Your task to perform on an android device: What's the weather going to be this weekend? Image 0: 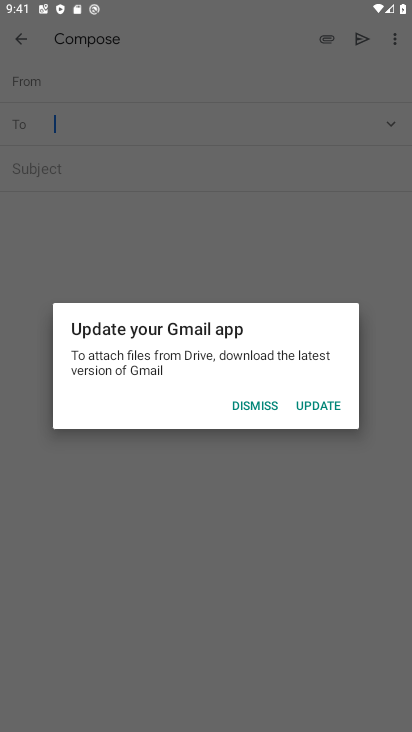
Step 0: press home button
Your task to perform on an android device: What's the weather going to be this weekend? Image 1: 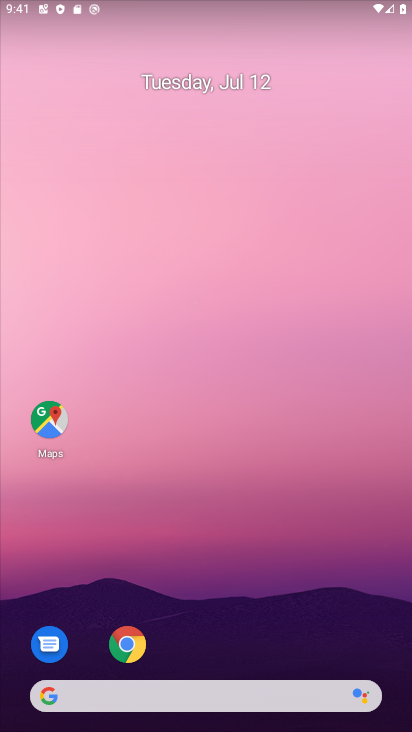
Step 1: click (166, 701)
Your task to perform on an android device: What's the weather going to be this weekend? Image 2: 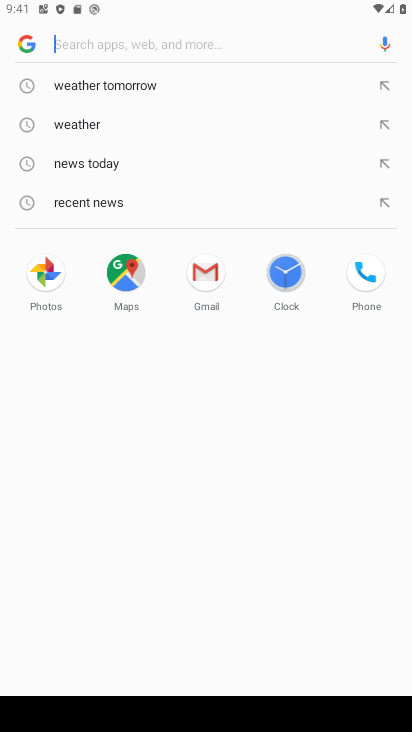
Step 2: click (240, 34)
Your task to perform on an android device: What's the weather going to be this weekend? Image 3: 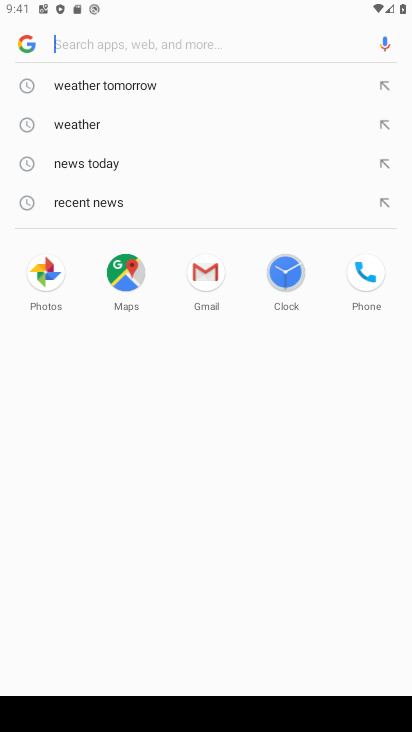
Step 3: type "What's the weather going to be this weekend?"
Your task to perform on an android device: What's the weather going to be this weekend? Image 4: 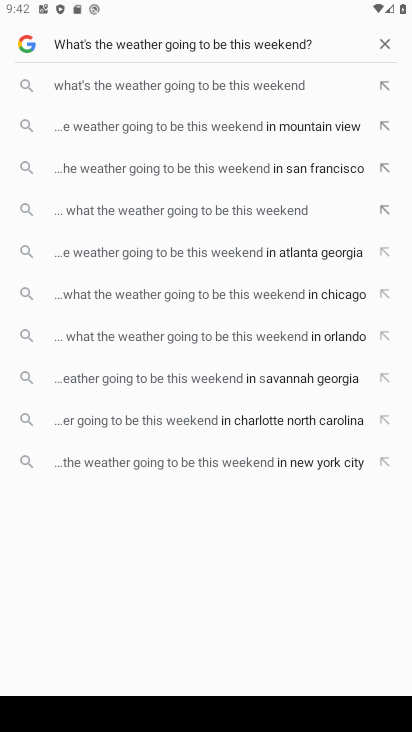
Step 4: press enter
Your task to perform on an android device: What's the weather going to be this weekend? Image 5: 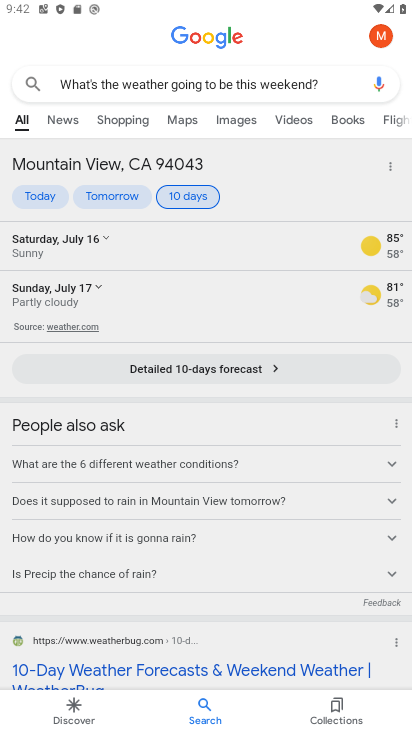
Step 5: task complete